Your task to perform on an android device: Open location settings Image 0: 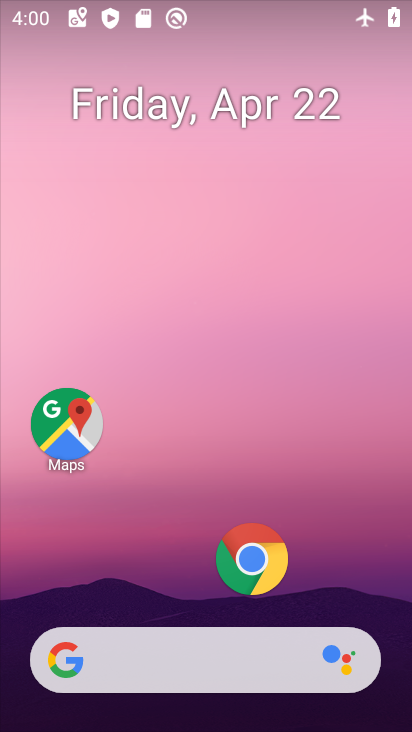
Step 0: click (152, 353)
Your task to perform on an android device: Open location settings Image 1: 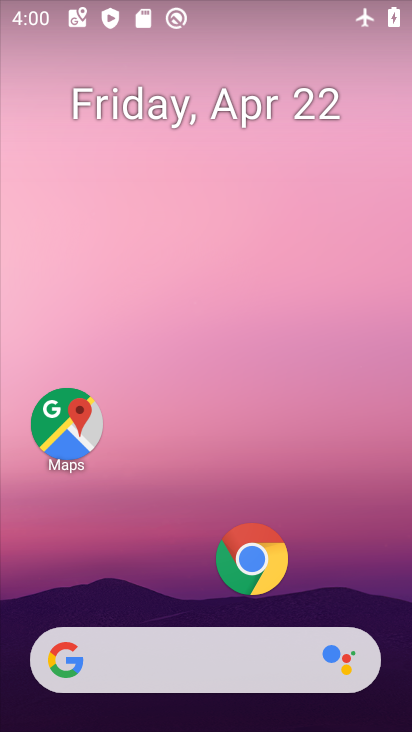
Step 1: drag from (124, 578) to (218, 114)
Your task to perform on an android device: Open location settings Image 2: 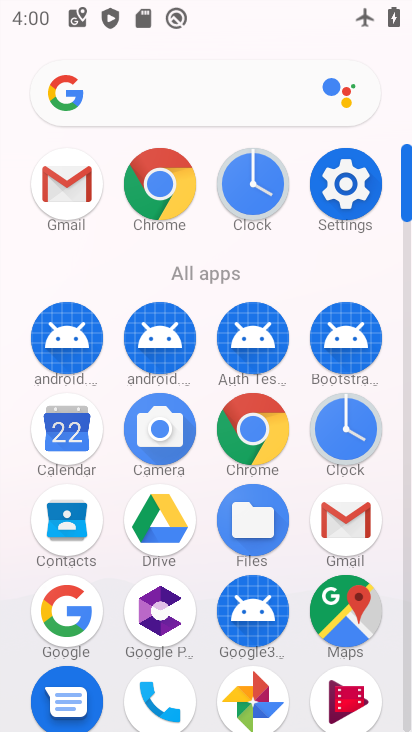
Step 2: click (360, 201)
Your task to perform on an android device: Open location settings Image 3: 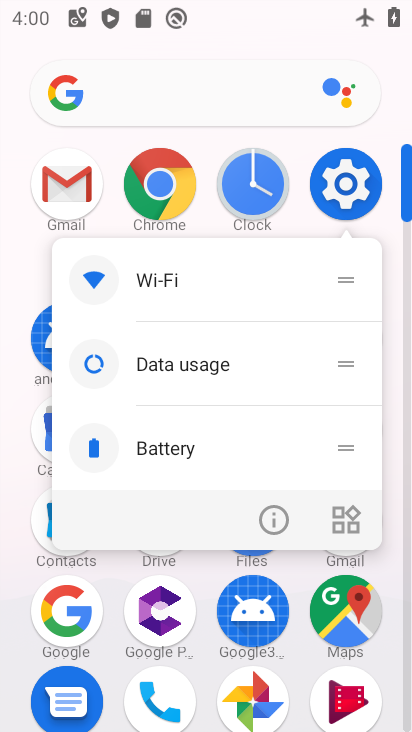
Step 3: click (360, 201)
Your task to perform on an android device: Open location settings Image 4: 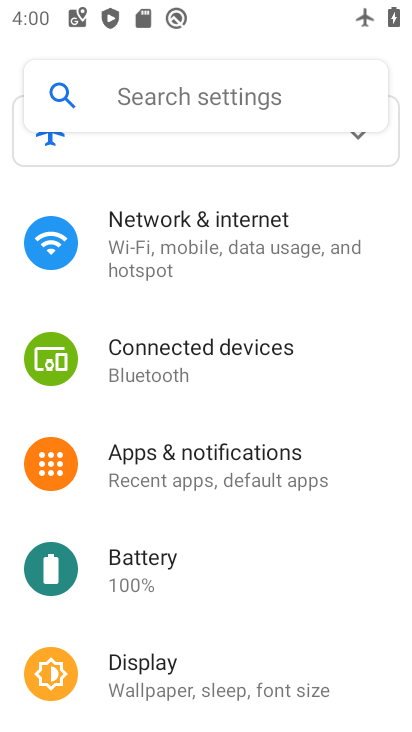
Step 4: drag from (191, 582) to (237, 272)
Your task to perform on an android device: Open location settings Image 5: 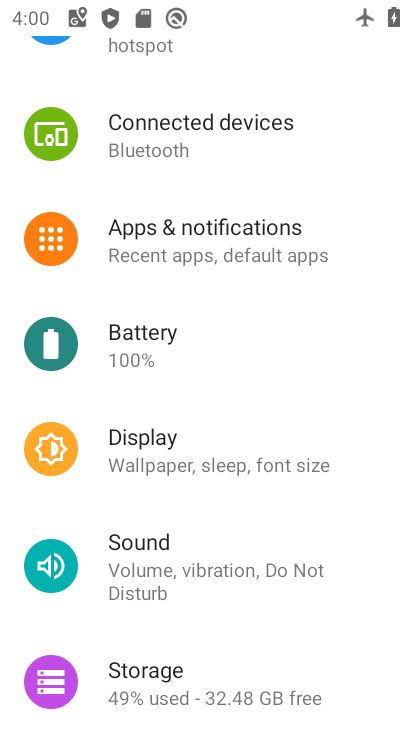
Step 5: drag from (184, 566) to (215, 379)
Your task to perform on an android device: Open location settings Image 6: 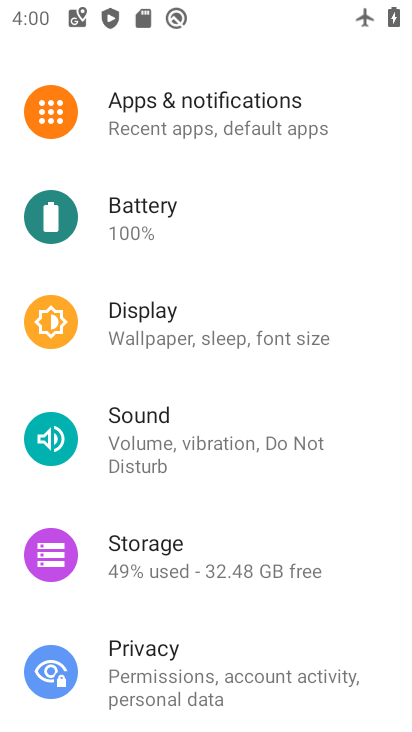
Step 6: drag from (157, 584) to (201, 300)
Your task to perform on an android device: Open location settings Image 7: 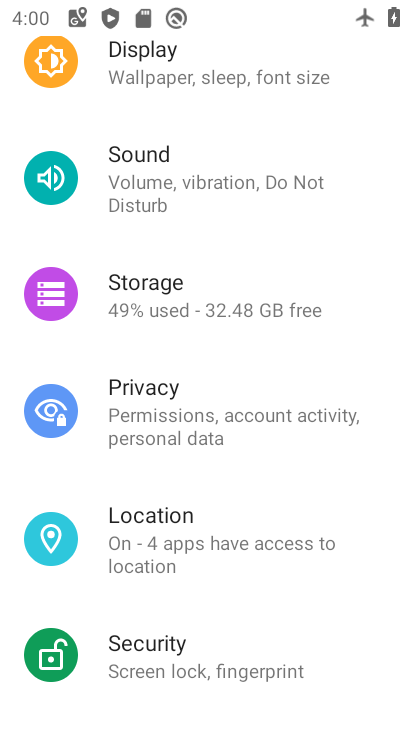
Step 7: click (142, 544)
Your task to perform on an android device: Open location settings Image 8: 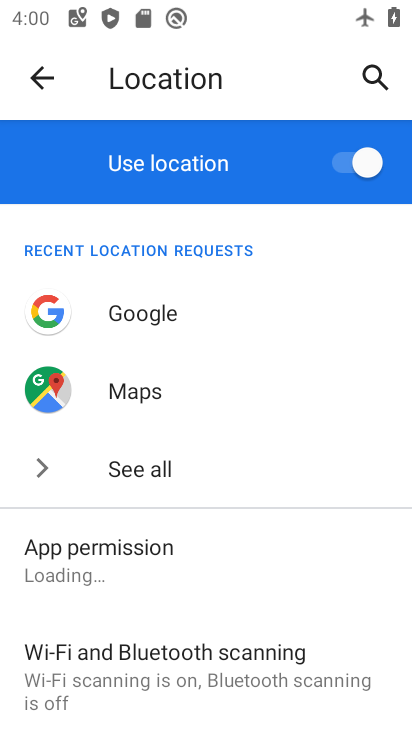
Step 8: task complete